Your task to perform on an android device: Open Yahoo.com Image 0: 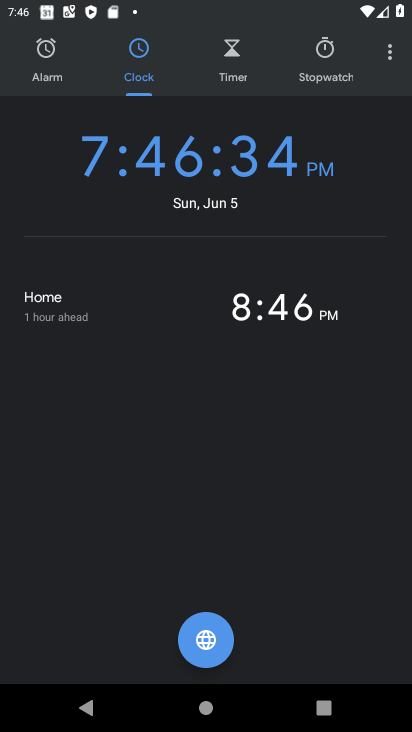
Step 0: press back button
Your task to perform on an android device: Open Yahoo.com Image 1: 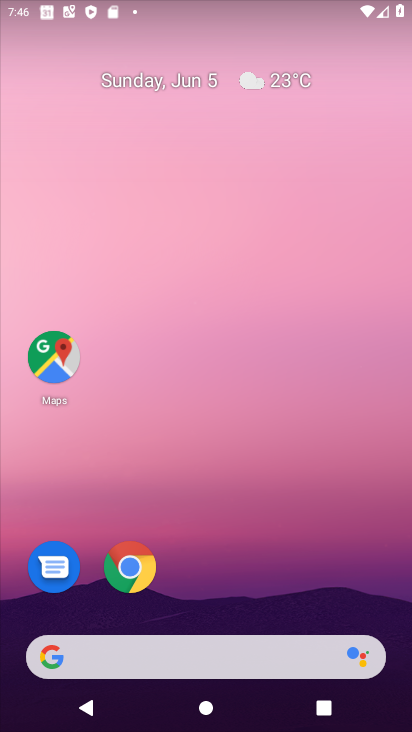
Step 1: drag from (402, 636) to (304, 165)
Your task to perform on an android device: Open Yahoo.com Image 2: 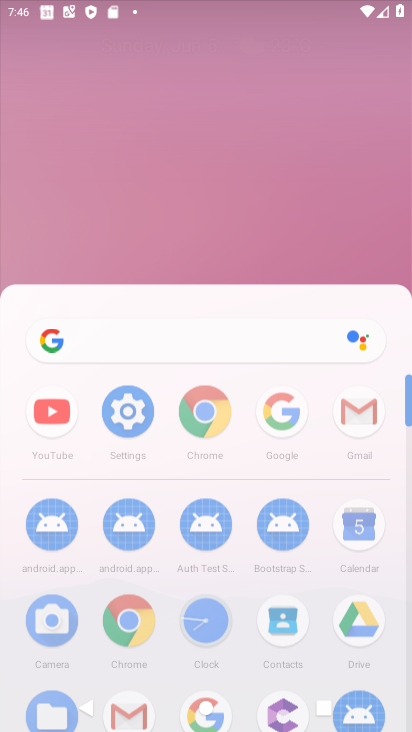
Step 2: click (254, 57)
Your task to perform on an android device: Open Yahoo.com Image 3: 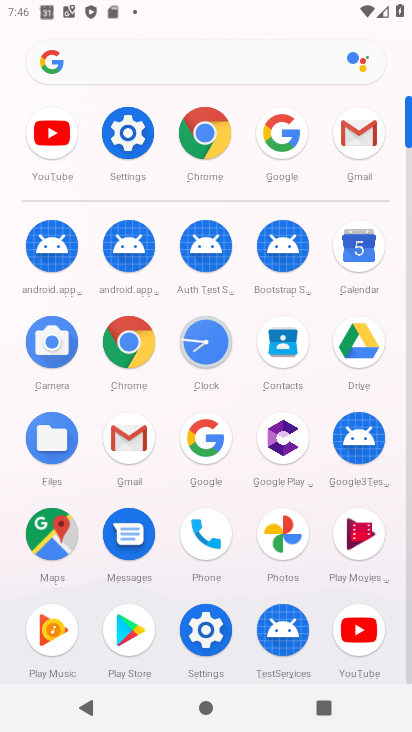
Step 3: click (232, 444)
Your task to perform on an android device: Open Yahoo.com Image 4: 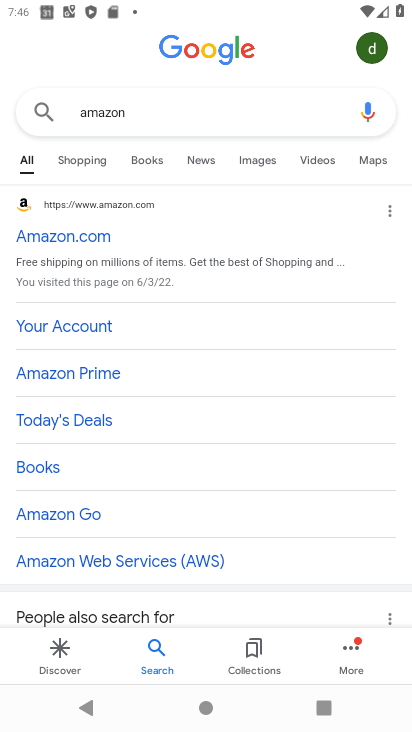
Step 4: press back button
Your task to perform on an android device: Open Yahoo.com Image 5: 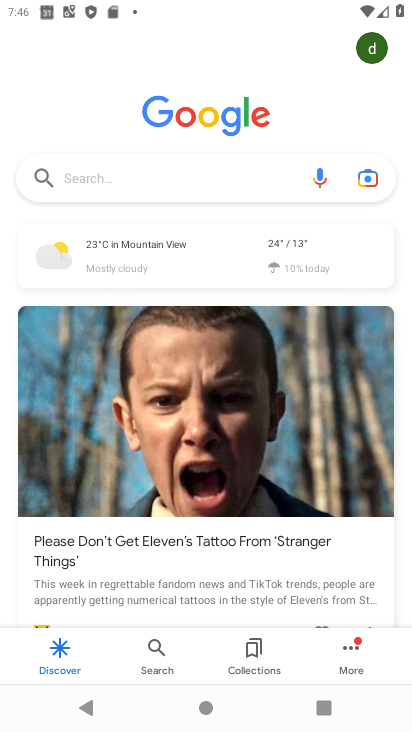
Step 5: click (132, 178)
Your task to perform on an android device: Open Yahoo.com Image 6: 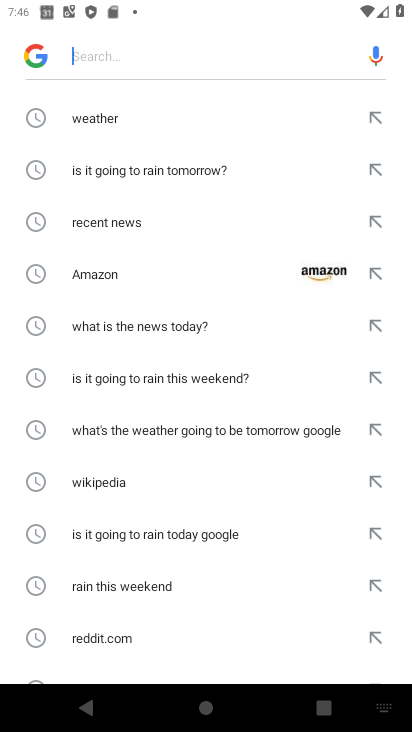
Step 6: drag from (155, 635) to (161, 135)
Your task to perform on an android device: Open Yahoo.com Image 7: 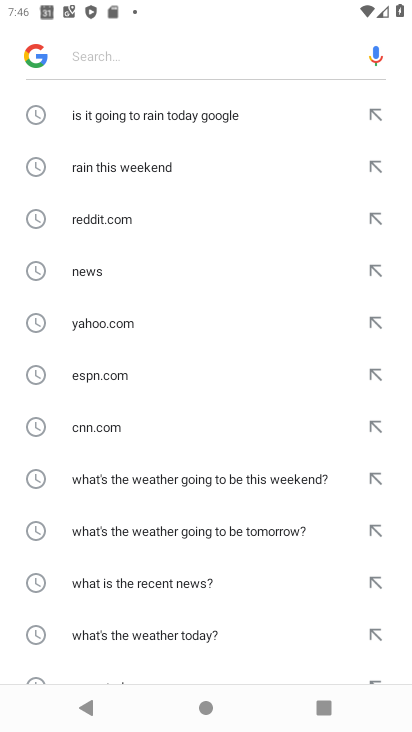
Step 7: click (127, 339)
Your task to perform on an android device: Open Yahoo.com Image 8: 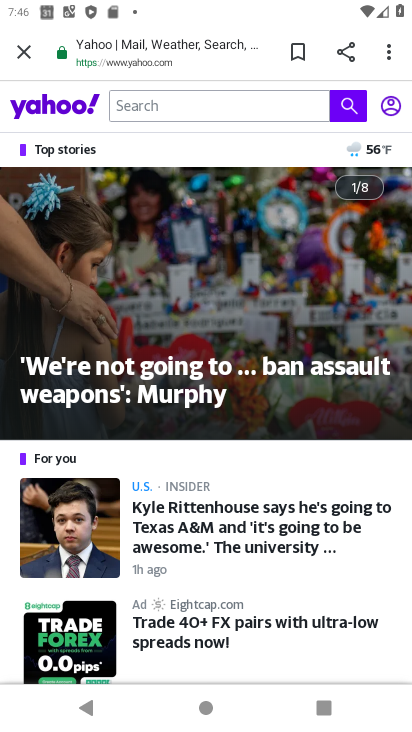
Step 8: task complete